Your task to perform on an android device: Go to Yahoo.com Image 0: 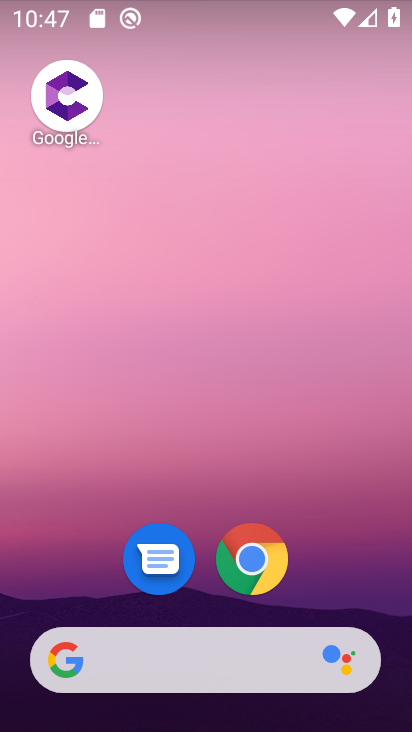
Step 0: drag from (282, 663) to (276, 236)
Your task to perform on an android device: Go to Yahoo.com Image 1: 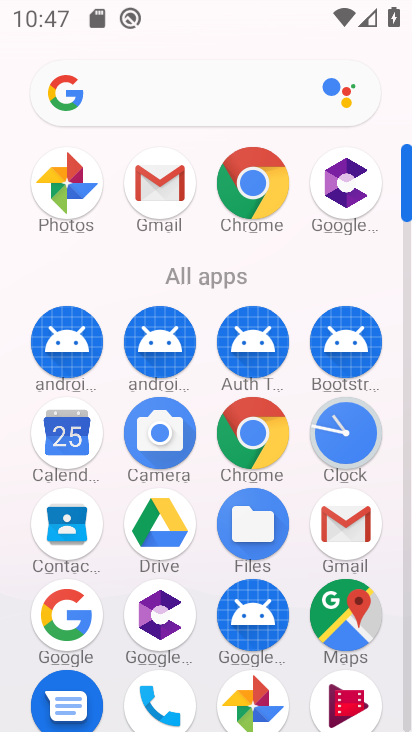
Step 1: click (265, 159)
Your task to perform on an android device: Go to Yahoo.com Image 2: 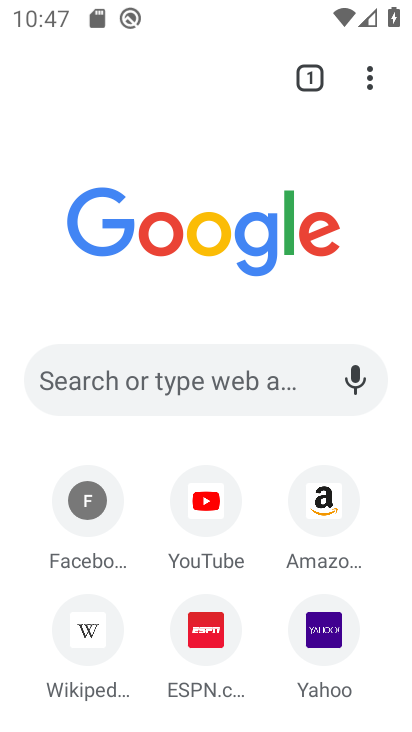
Step 2: click (327, 634)
Your task to perform on an android device: Go to Yahoo.com Image 3: 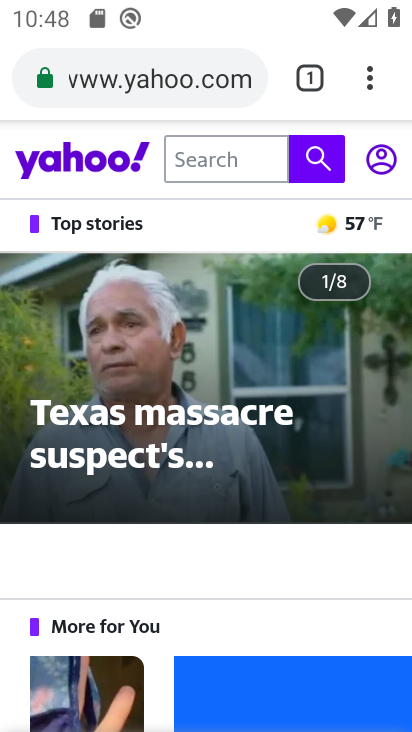
Step 3: task complete